Your task to perform on an android device: Go to settings Image 0: 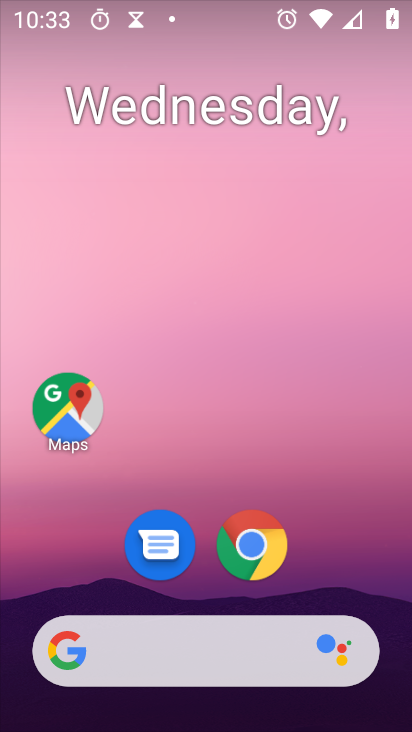
Step 0: press home button
Your task to perform on an android device: Go to settings Image 1: 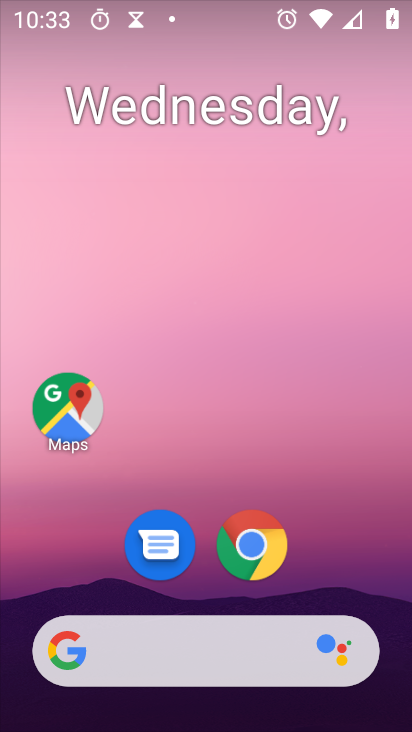
Step 1: drag from (176, 650) to (331, 110)
Your task to perform on an android device: Go to settings Image 2: 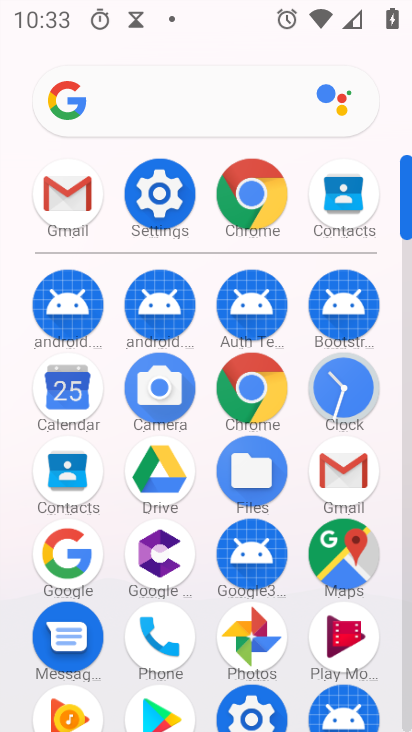
Step 2: click (145, 184)
Your task to perform on an android device: Go to settings Image 3: 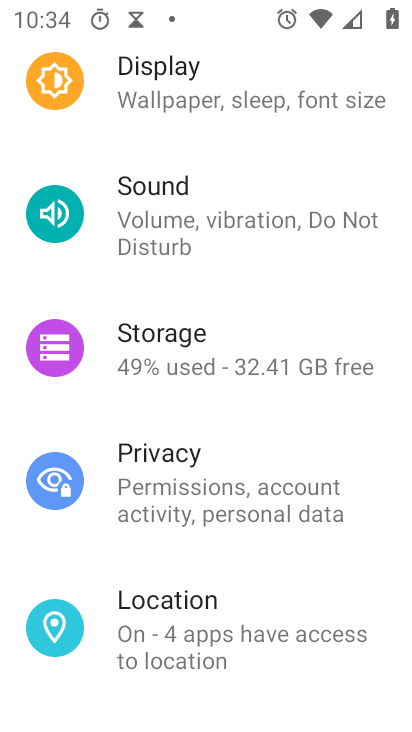
Step 3: task complete